Your task to perform on an android device: Show me recent news Image 0: 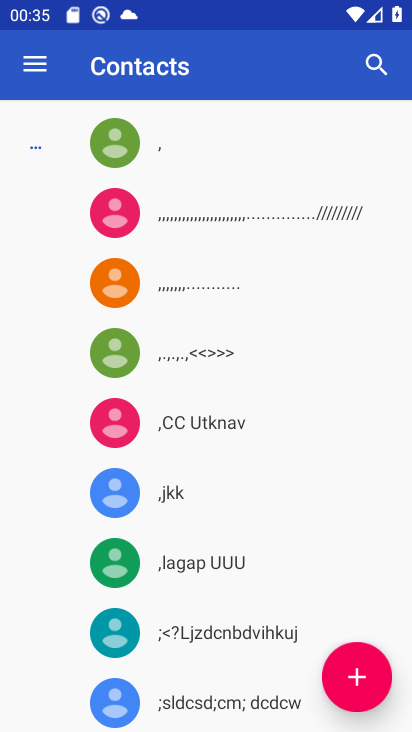
Step 0: press home button
Your task to perform on an android device: Show me recent news Image 1: 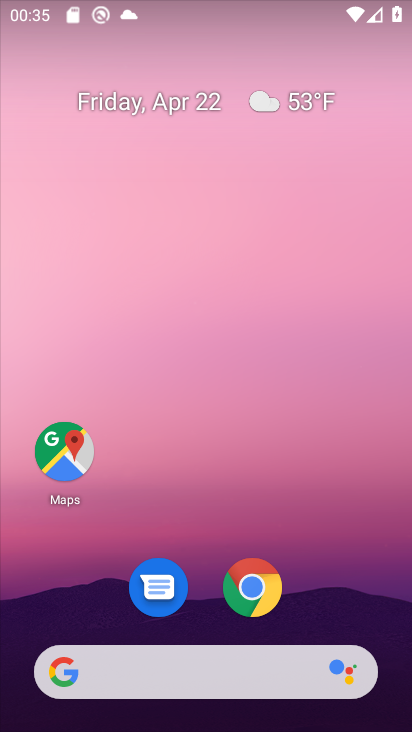
Step 1: drag from (306, 557) to (301, 187)
Your task to perform on an android device: Show me recent news Image 2: 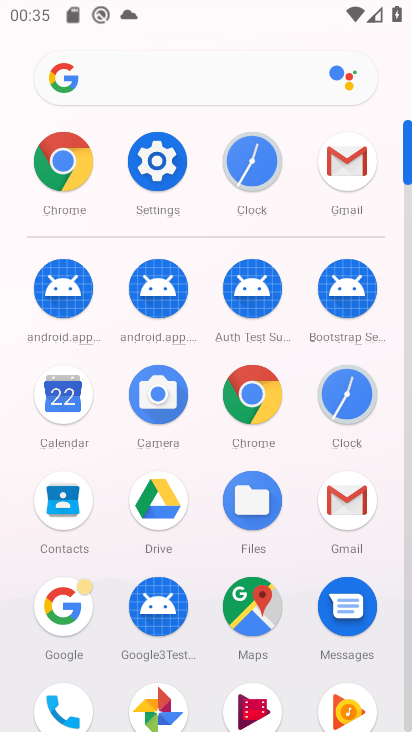
Step 2: click (267, 386)
Your task to perform on an android device: Show me recent news Image 3: 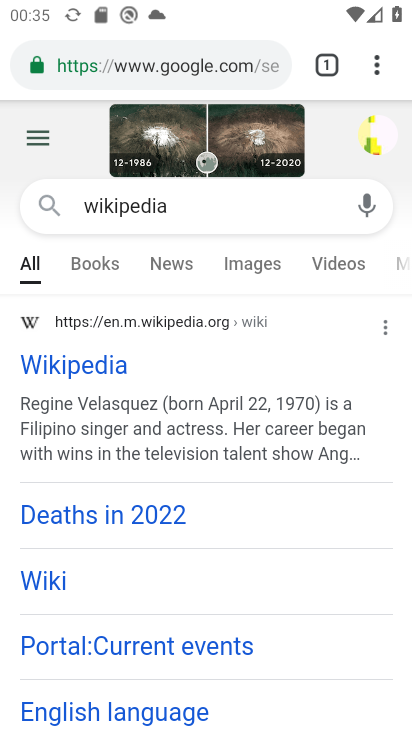
Step 3: click (167, 66)
Your task to perform on an android device: Show me recent news Image 4: 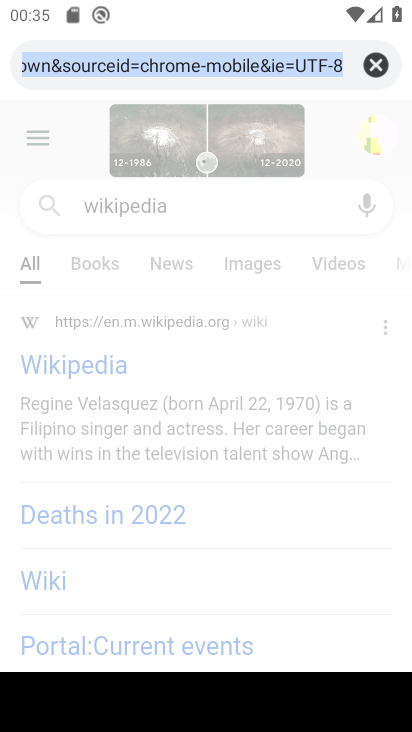
Step 4: type "recent news"
Your task to perform on an android device: Show me recent news Image 5: 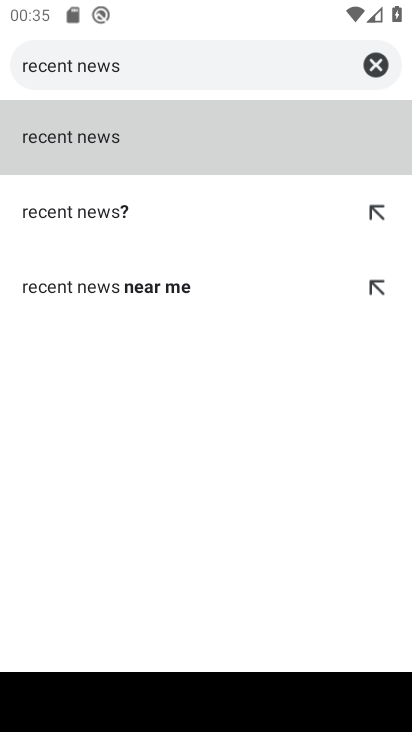
Step 5: click (127, 136)
Your task to perform on an android device: Show me recent news Image 6: 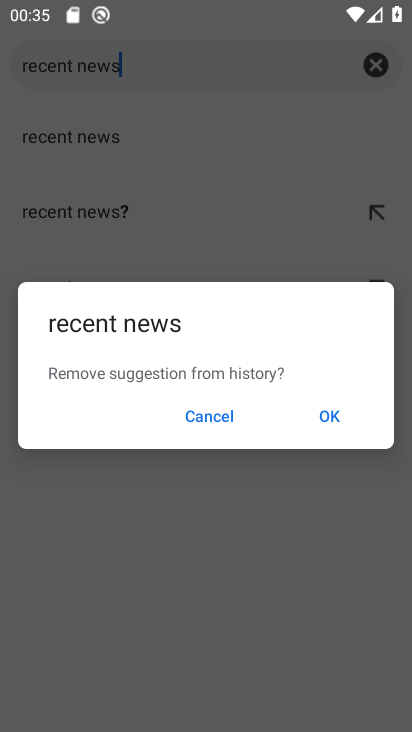
Step 6: click (336, 409)
Your task to perform on an android device: Show me recent news Image 7: 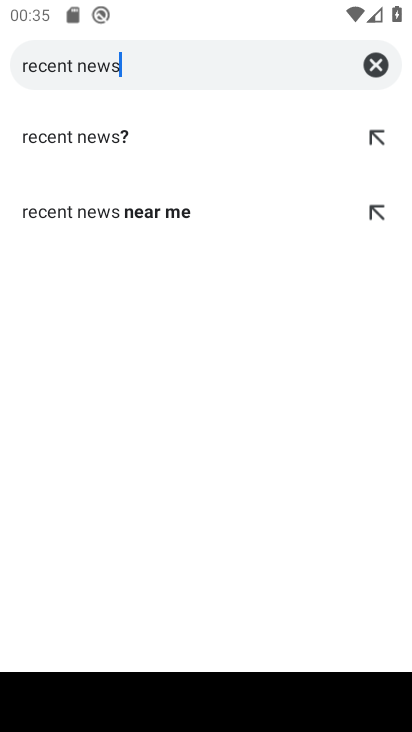
Step 7: click (88, 138)
Your task to perform on an android device: Show me recent news Image 8: 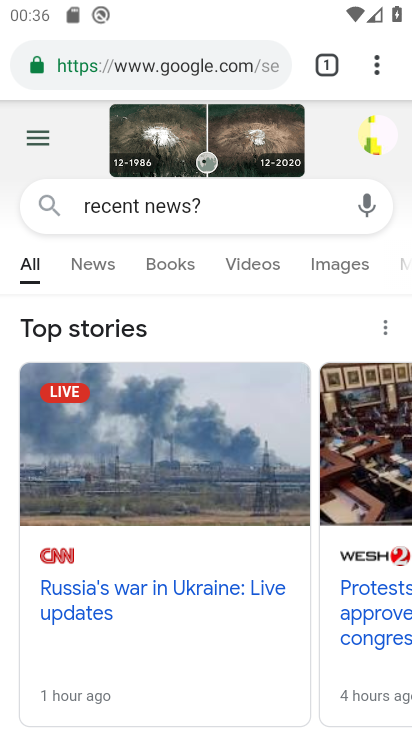
Step 8: task complete